Your task to perform on an android device: Search for asus rog on target, select the first entry, add it to the cart, then select checkout. Image 0: 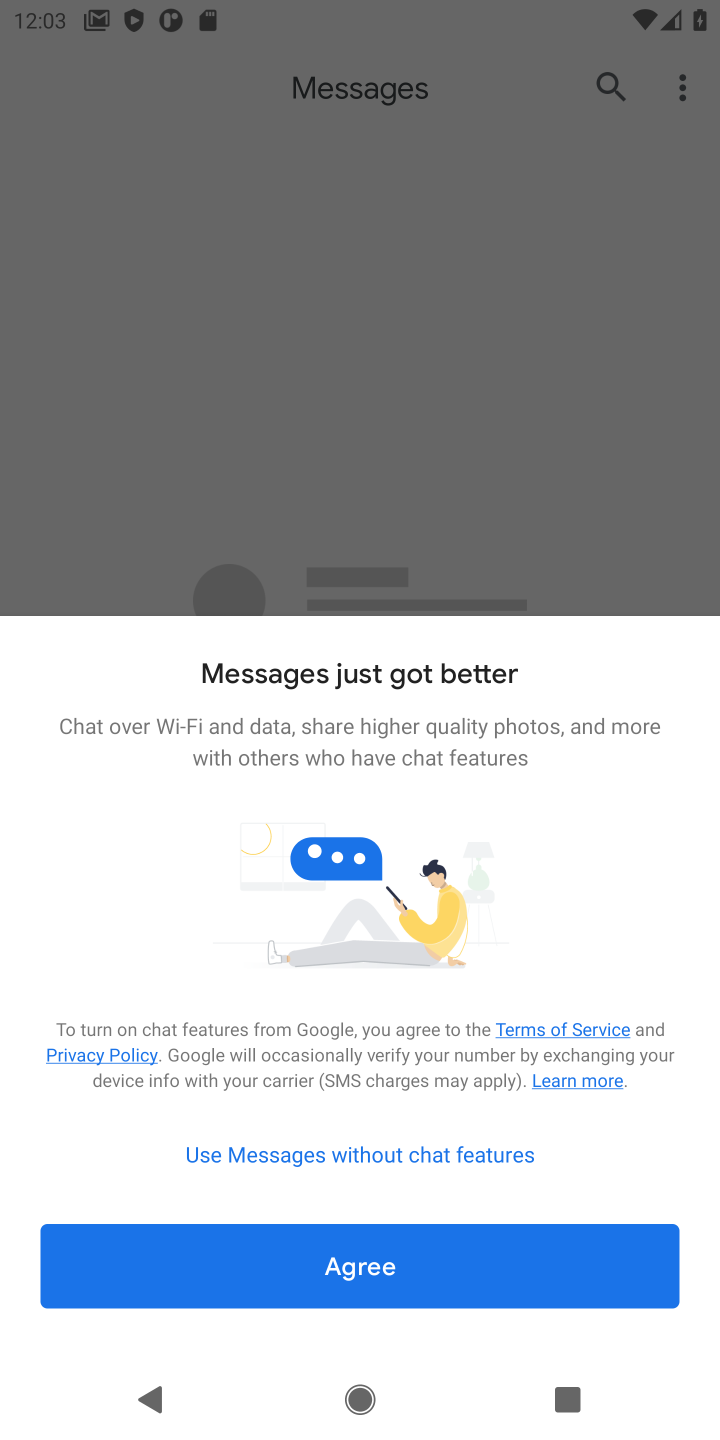
Step 0: press home button
Your task to perform on an android device: Search for asus rog on target, select the first entry, add it to the cart, then select checkout. Image 1: 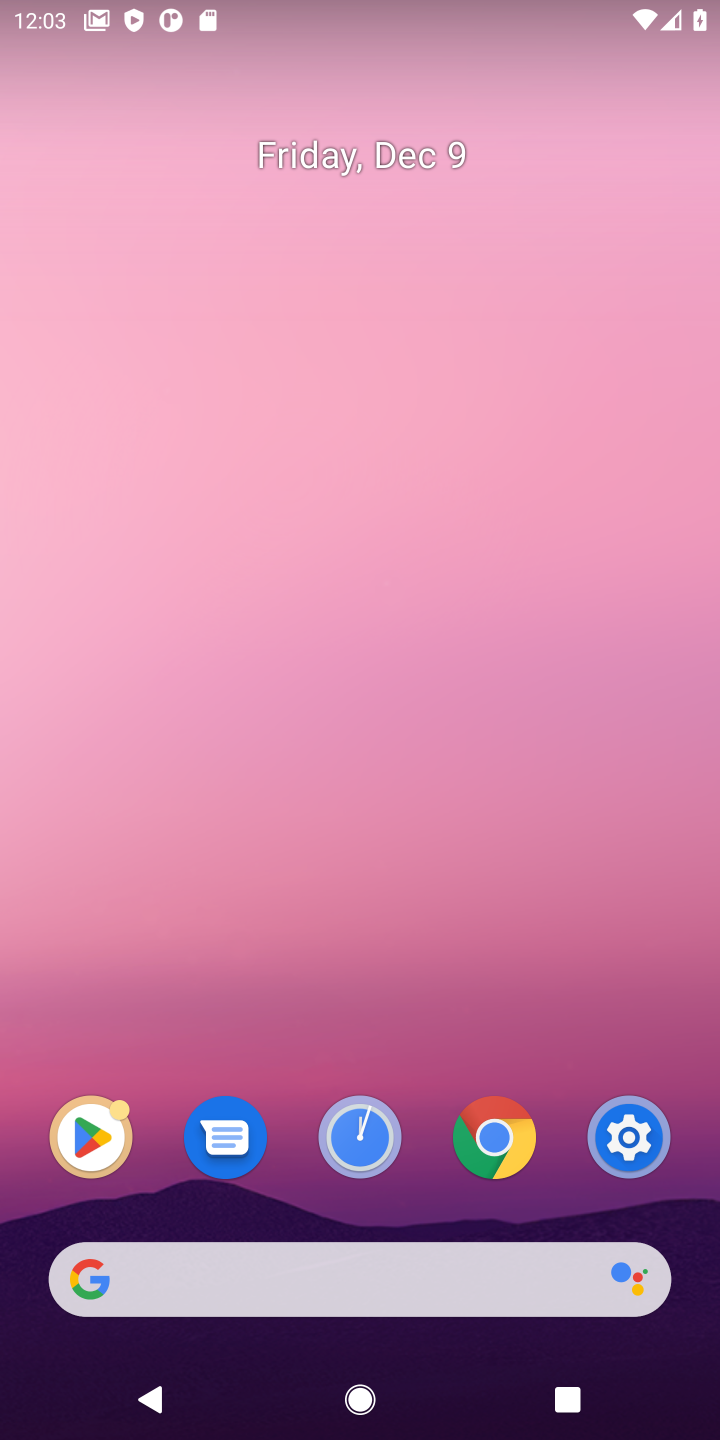
Step 1: click (387, 1291)
Your task to perform on an android device: Search for asus rog on target, select the first entry, add it to the cart, then select checkout. Image 2: 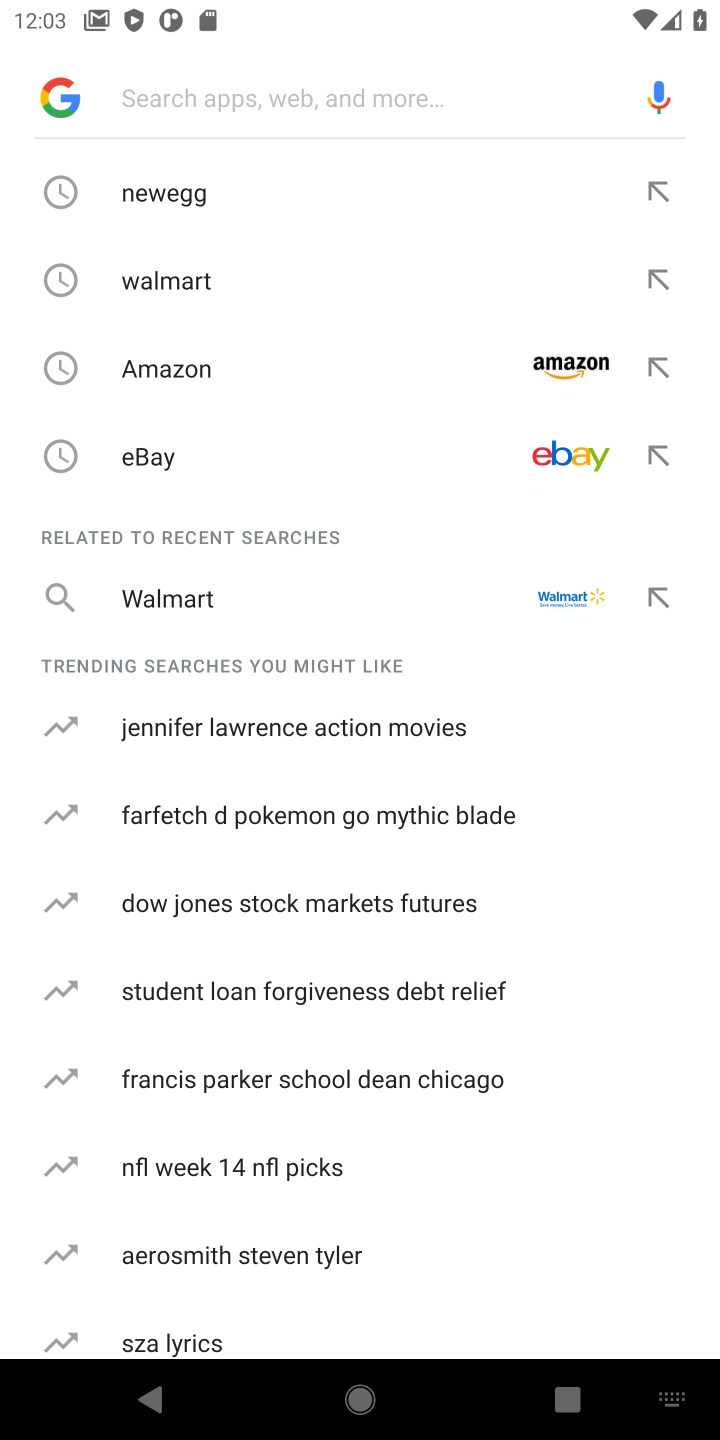
Step 2: type "target"
Your task to perform on an android device: Search for asus rog on target, select the first entry, add it to the cart, then select checkout. Image 3: 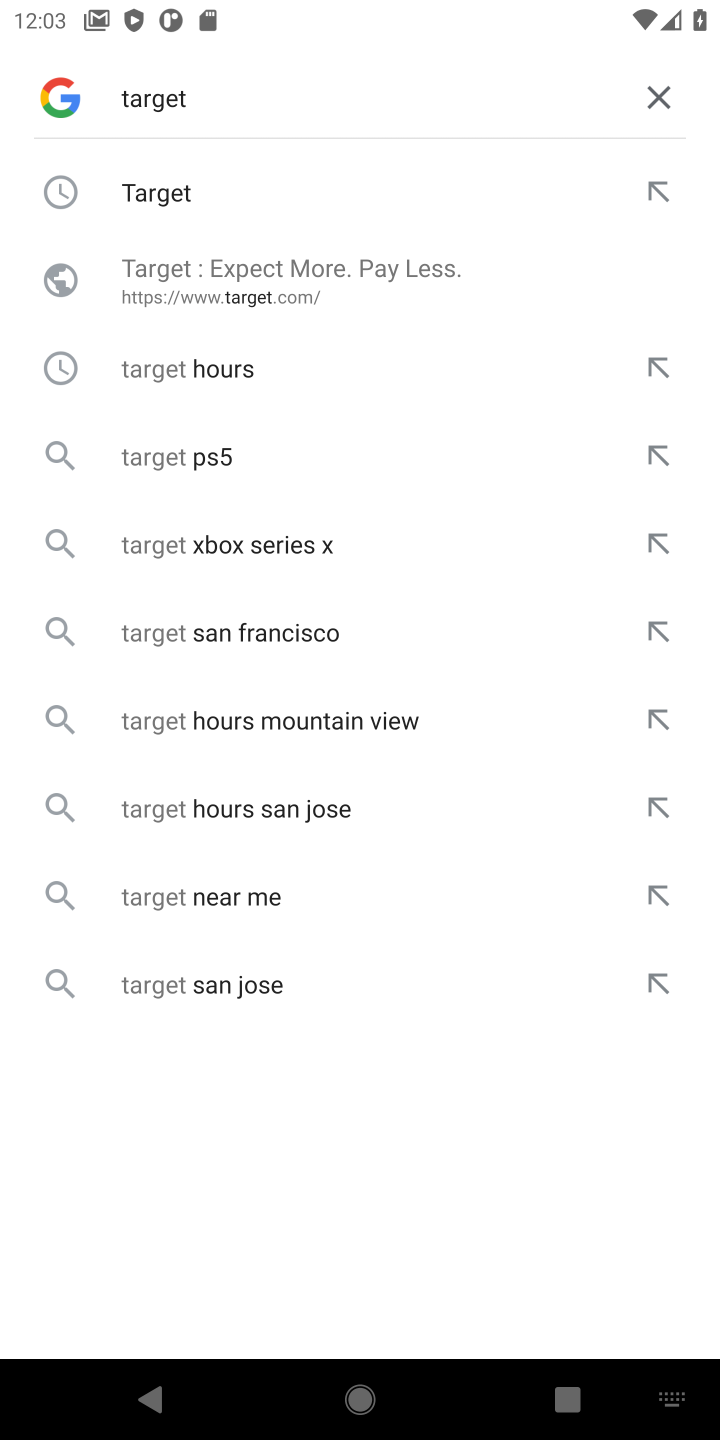
Step 3: click (198, 184)
Your task to perform on an android device: Search for asus rog on target, select the first entry, add it to the cart, then select checkout. Image 4: 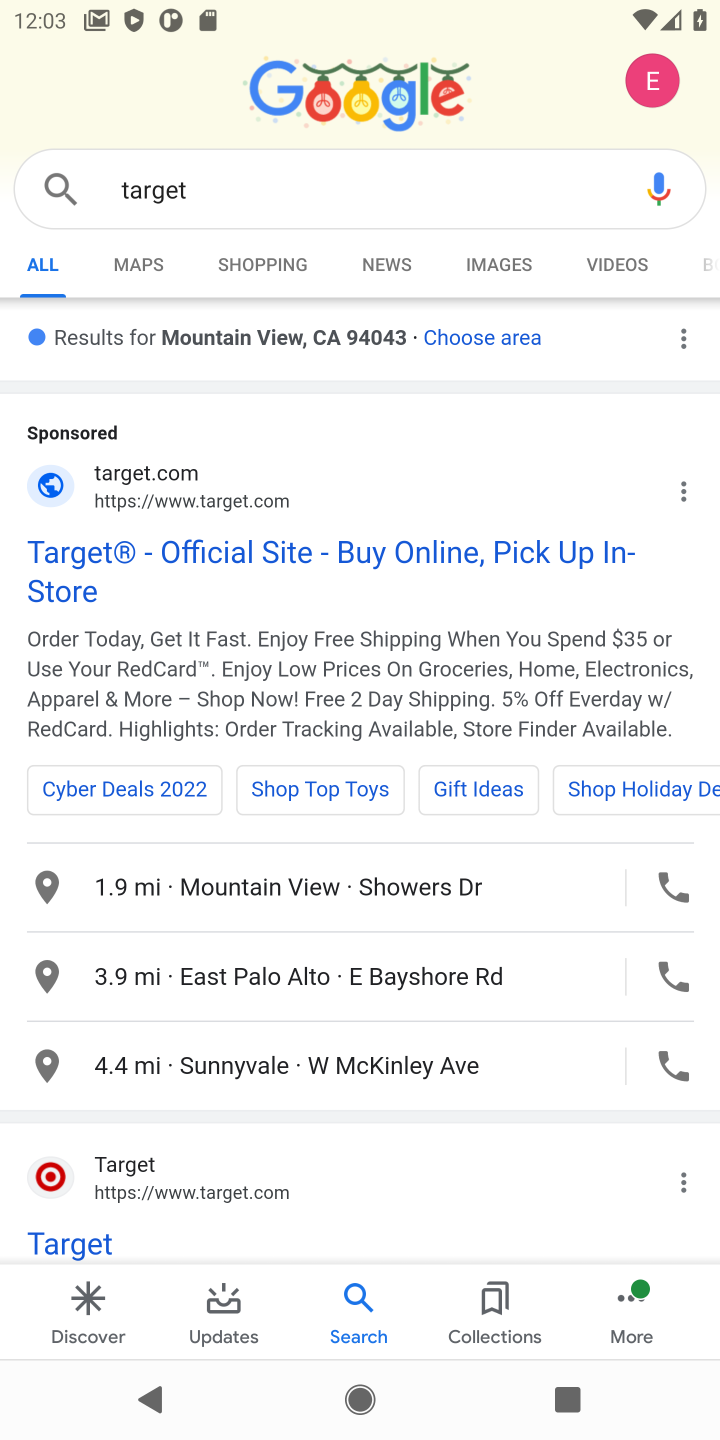
Step 4: click (204, 579)
Your task to perform on an android device: Search for asus rog on target, select the first entry, add it to the cart, then select checkout. Image 5: 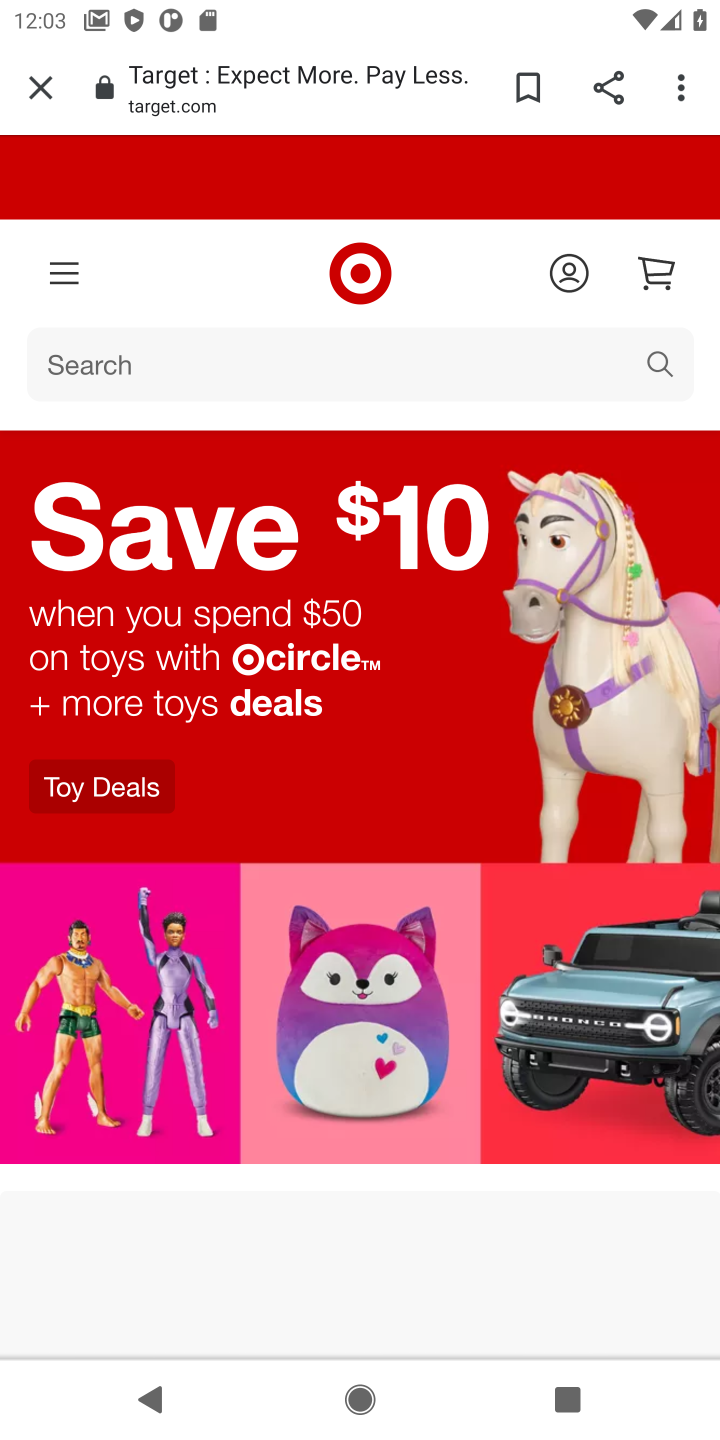
Step 5: click (278, 369)
Your task to perform on an android device: Search for asus rog on target, select the first entry, add it to the cart, then select checkout. Image 6: 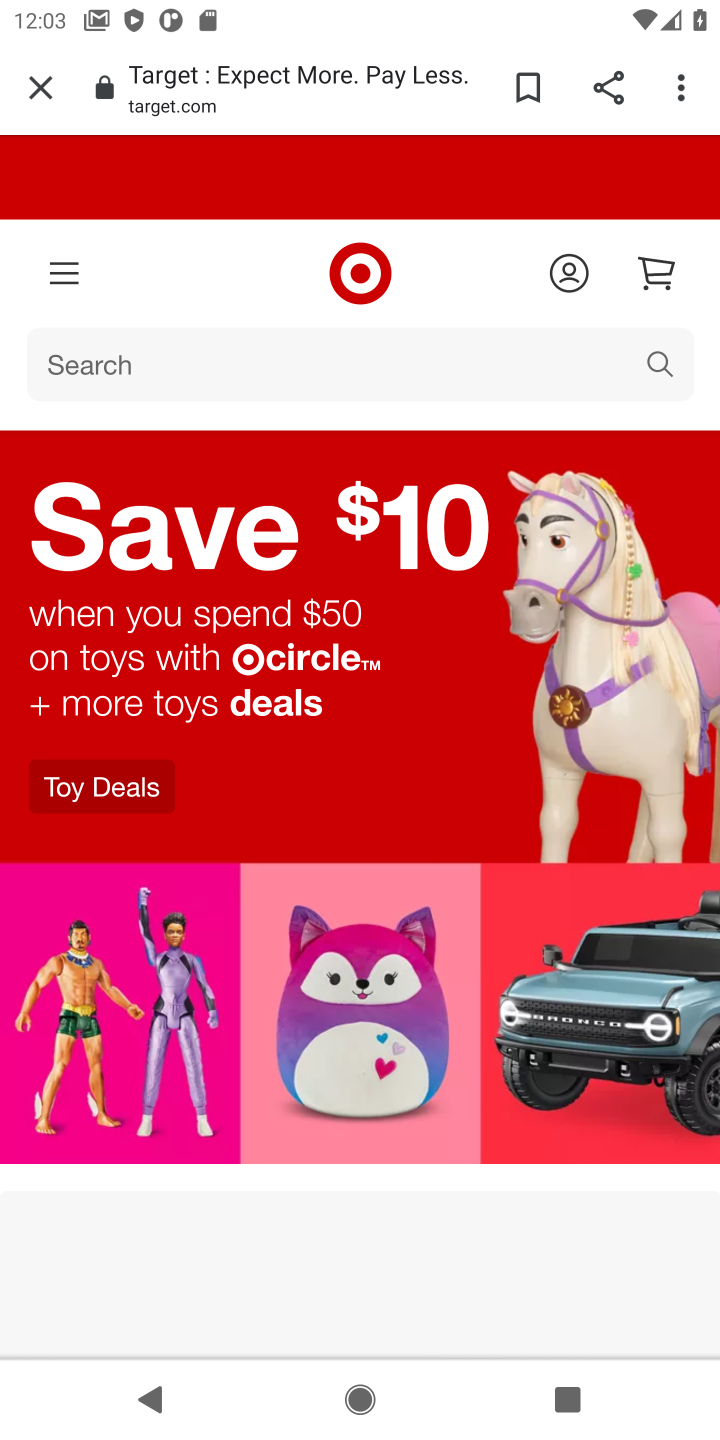
Step 6: click (278, 369)
Your task to perform on an android device: Search for asus rog on target, select the first entry, add it to the cart, then select checkout. Image 7: 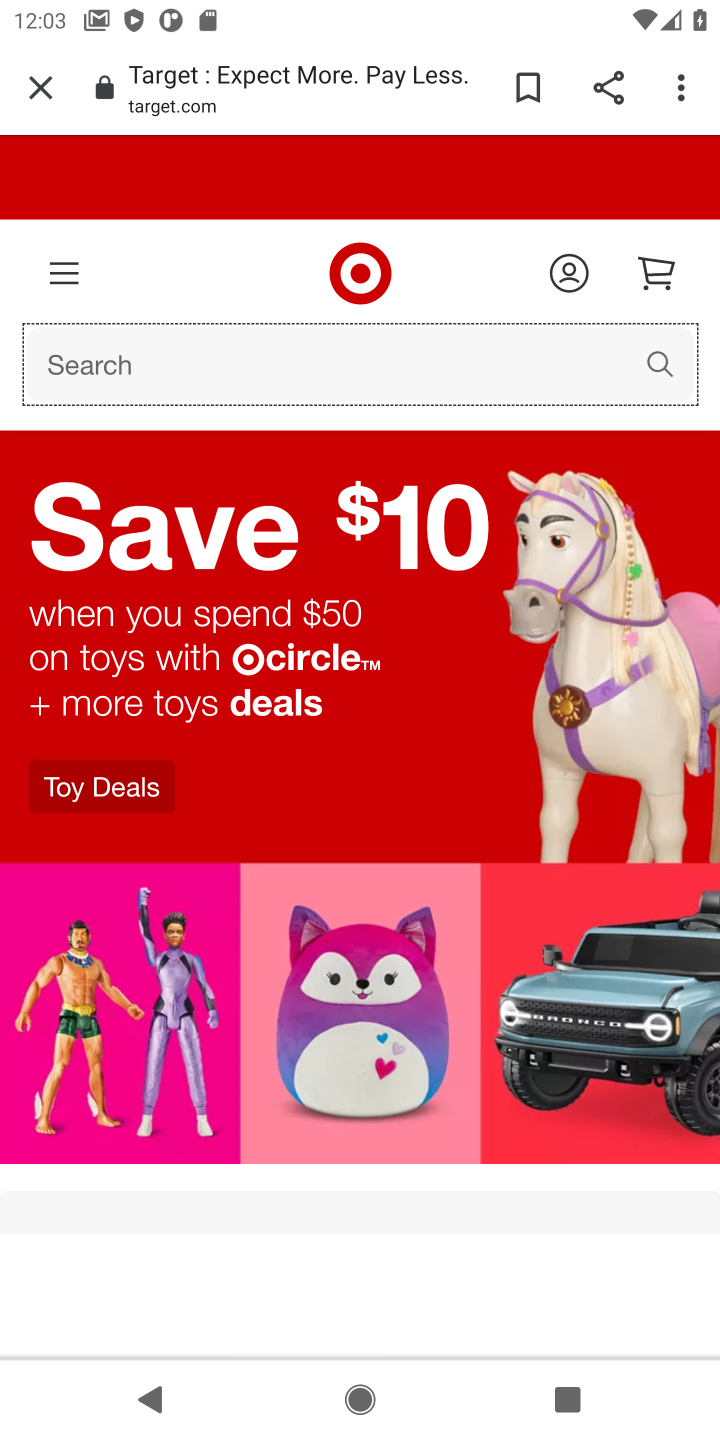
Step 7: type "asus rog"
Your task to perform on an android device: Search for asus rog on target, select the first entry, add it to the cart, then select checkout. Image 8: 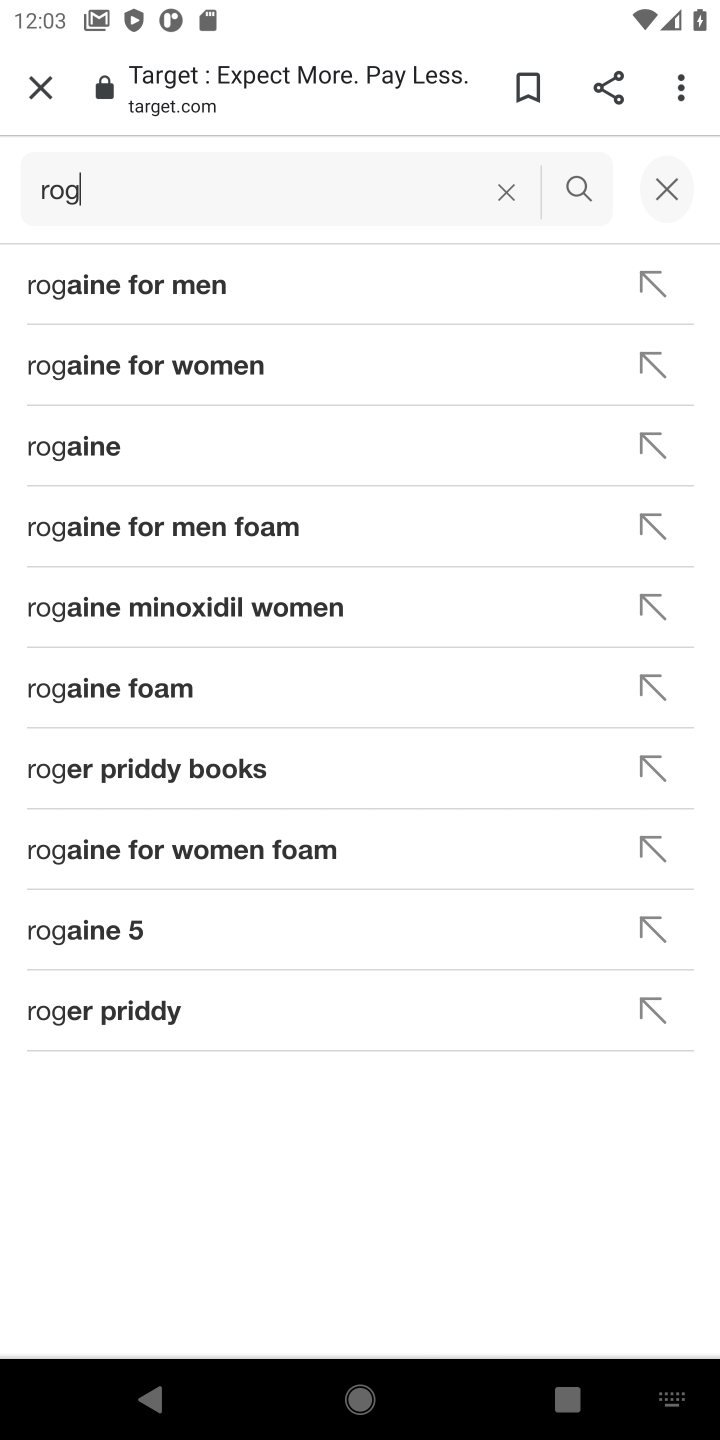
Step 8: click (593, 199)
Your task to perform on an android device: Search for asus rog on target, select the first entry, add it to the cart, then select checkout. Image 9: 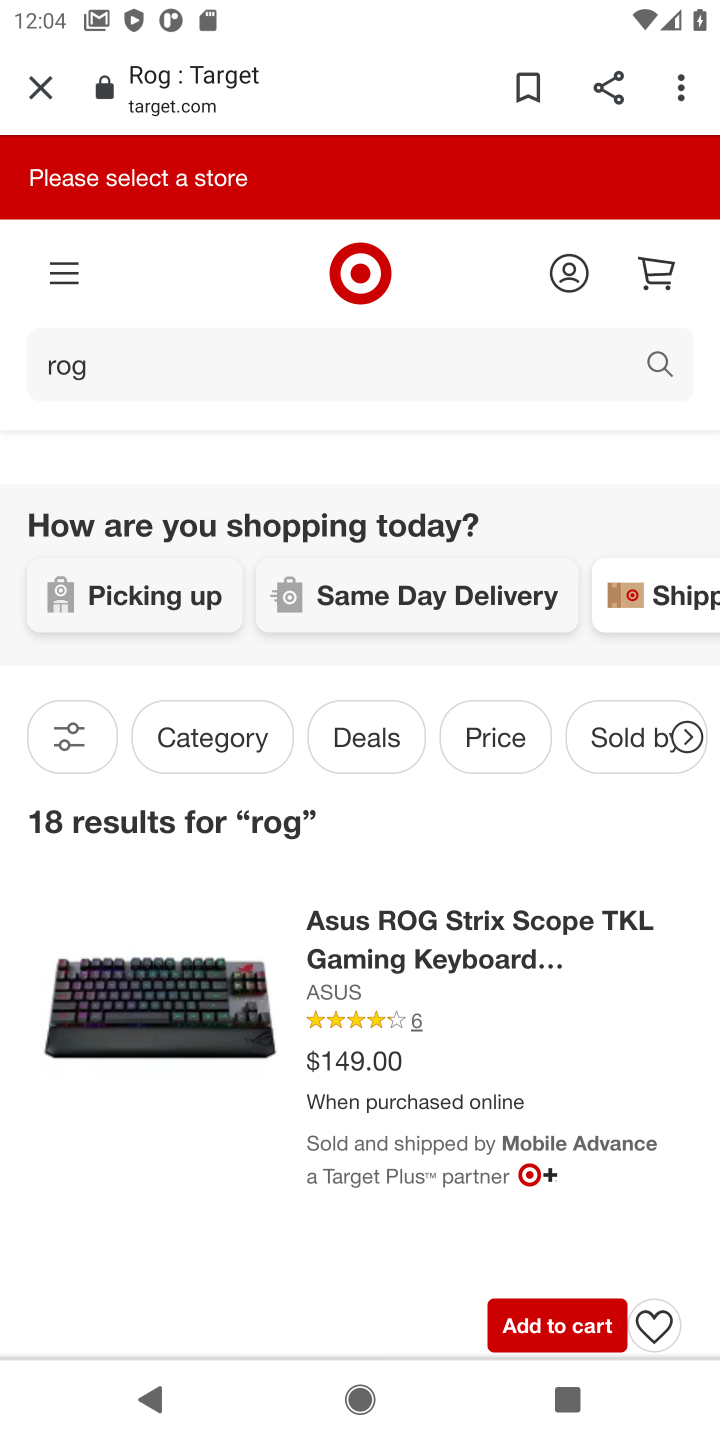
Step 9: click (544, 1337)
Your task to perform on an android device: Search for asus rog on target, select the first entry, add it to the cart, then select checkout. Image 10: 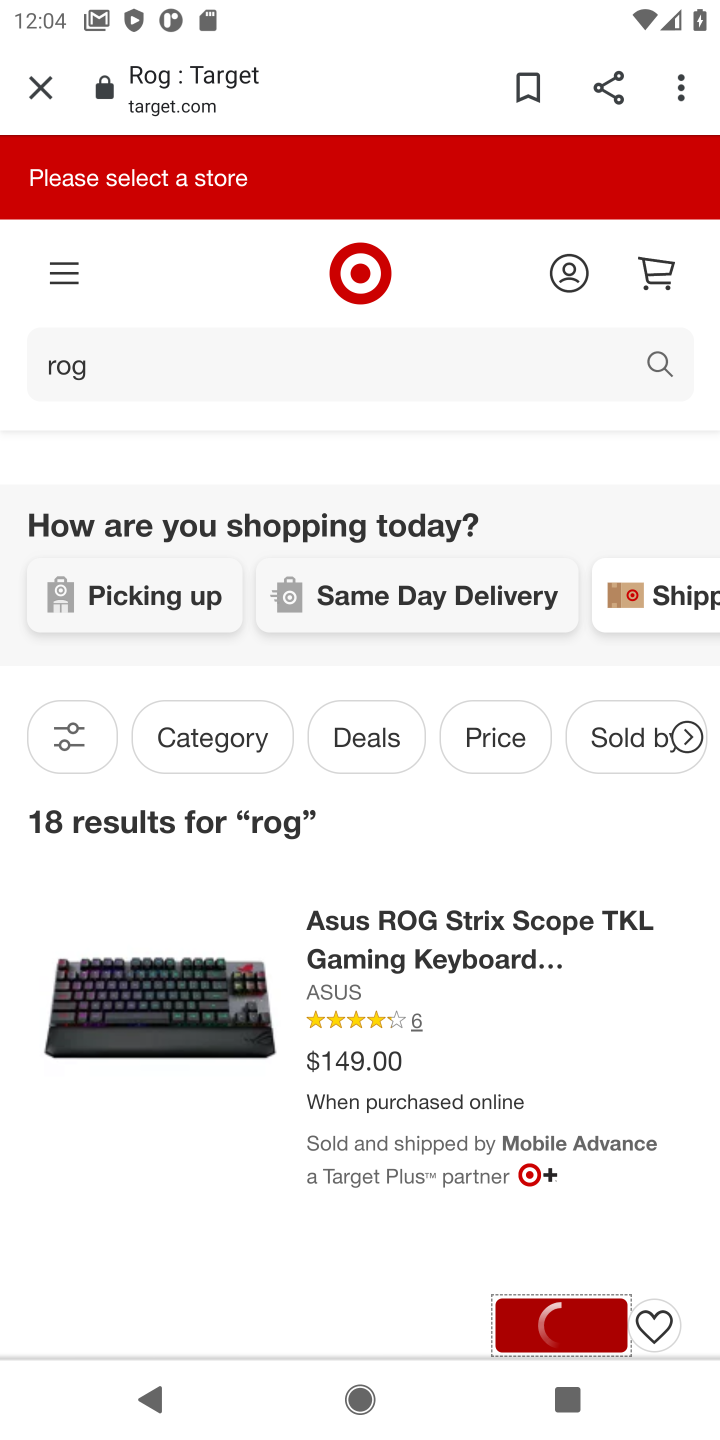
Step 10: task complete